Your task to perform on an android device: search for starred emails in the gmail app Image 0: 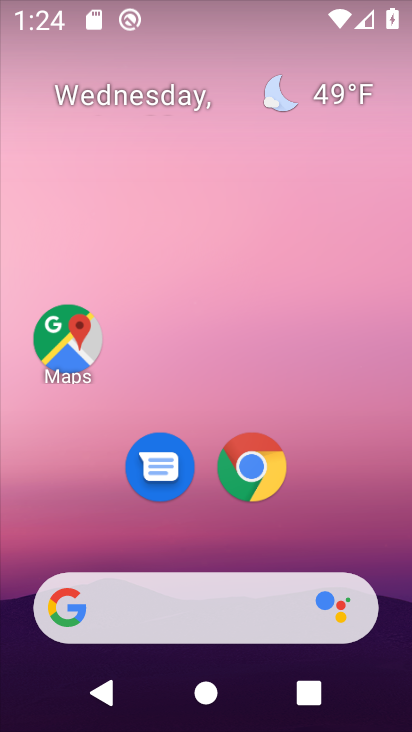
Step 0: drag from (388, 590) to (330, 115)
Your task to perform on an android device: search for starred emails in the gmail app Image 1: 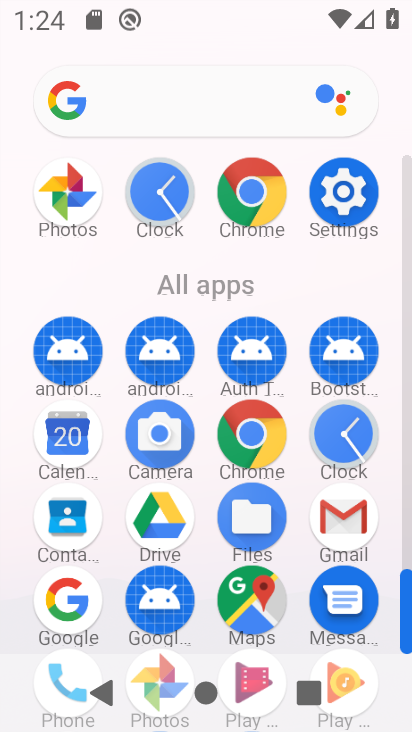
Step 1: drag from (405, 540) to (404, 487)
Your task to perform on an android device: search for starred emails in the gmail app Image 2: 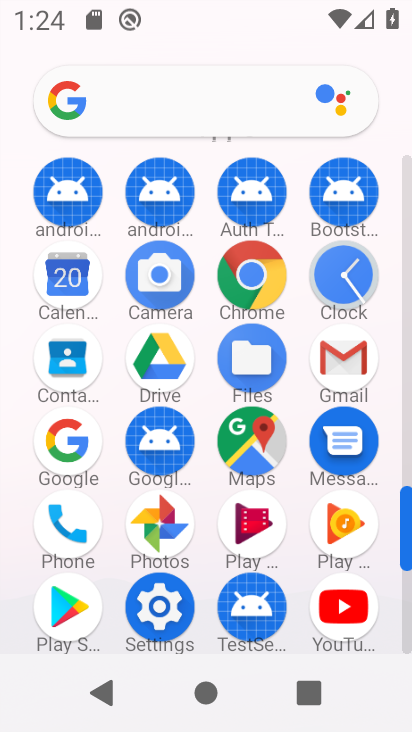
Step 2: click (341, 357)
Your task to perform on an android device: search for starred emails in the gmail app Image 3: 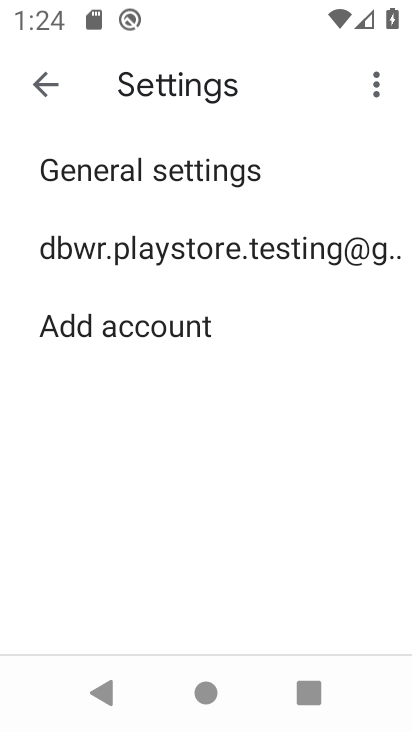
Step 3: press back button
Your task to perform on an android device: search for starred emails in the gmail app Image 4: 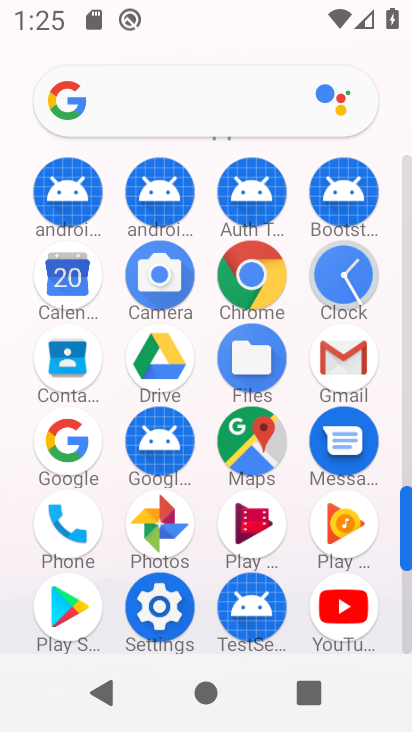
Step 4: click (342, 356)
Your task to perform on an android device: search for starred emails in the gmail app Image 5: 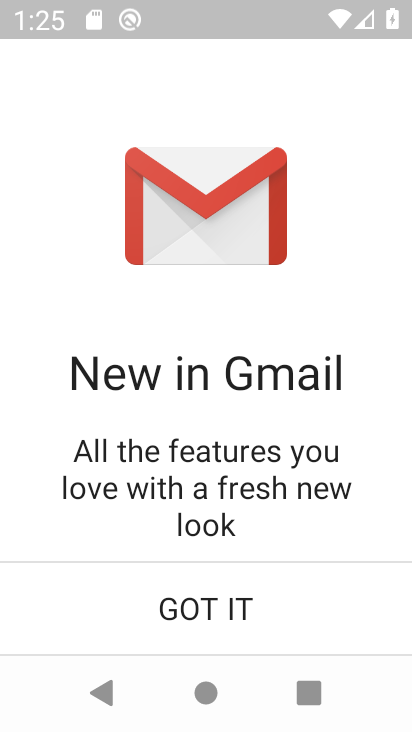
Step 5: click (194, 621)
Your task to perform on an android device: search for starred emails in the gmail app Image 6: 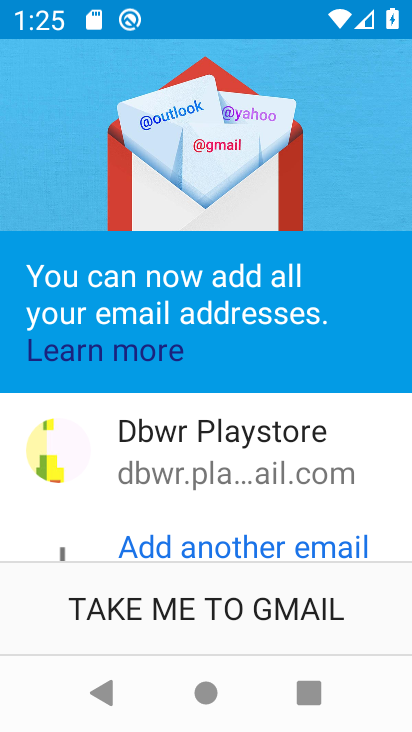
Step 6: click (194, 621)
Your task to perform on an android device: search for starred emails in the gmail app Image 7: 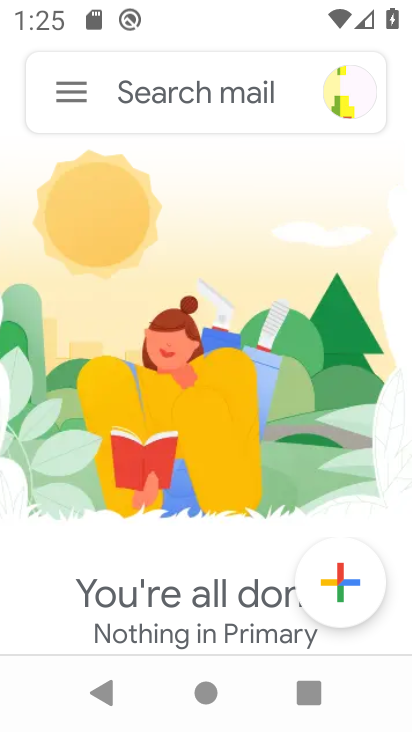
Step 7: click (68, 88)
Your task to perform on an android device: search for starred emails in the gmail app Image 8: 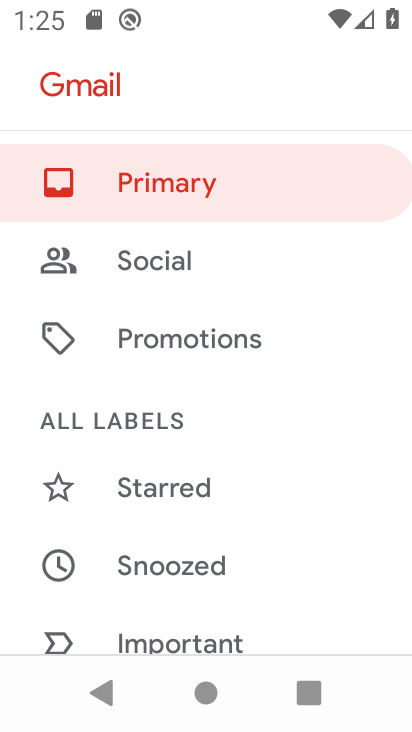
Step 8: click (160, 490)
Your task to perform on an android device: search for starred emails in the gmail app Image 9: 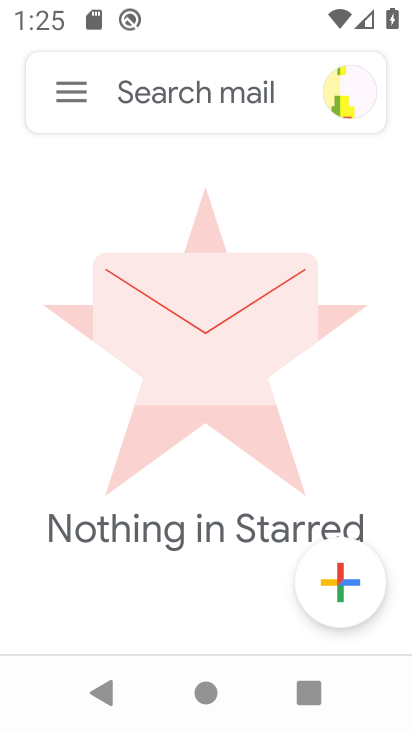
Step 9: task complete